Your task to perform on an android device: see tabs open on other devices in the chrome app Image 0: 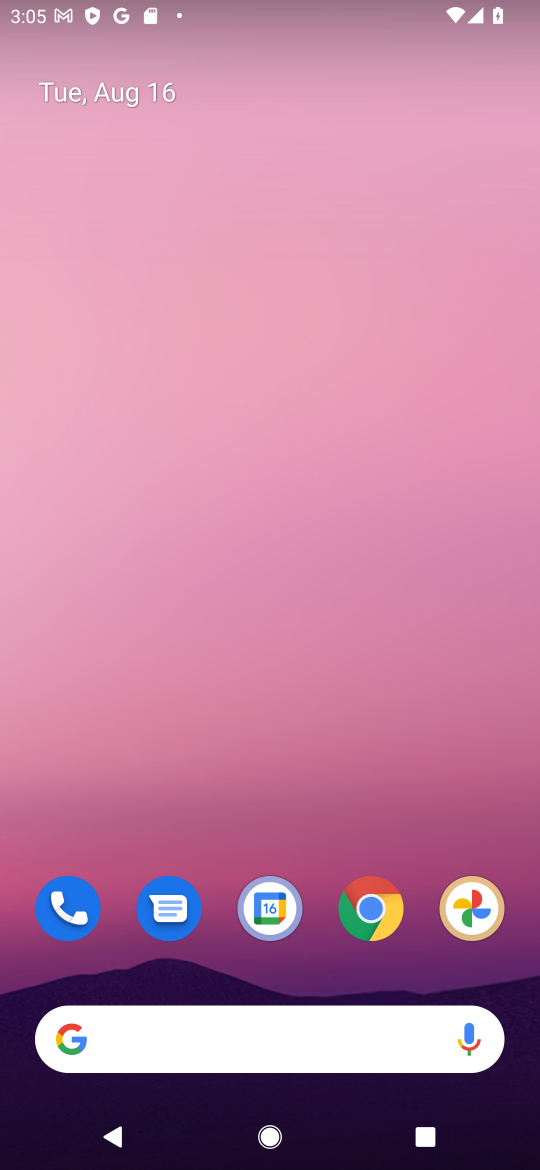
Step 0: click (382, 911)
Your task to perform on an android device: see tabs open on other devices in the chrome app Image 1: 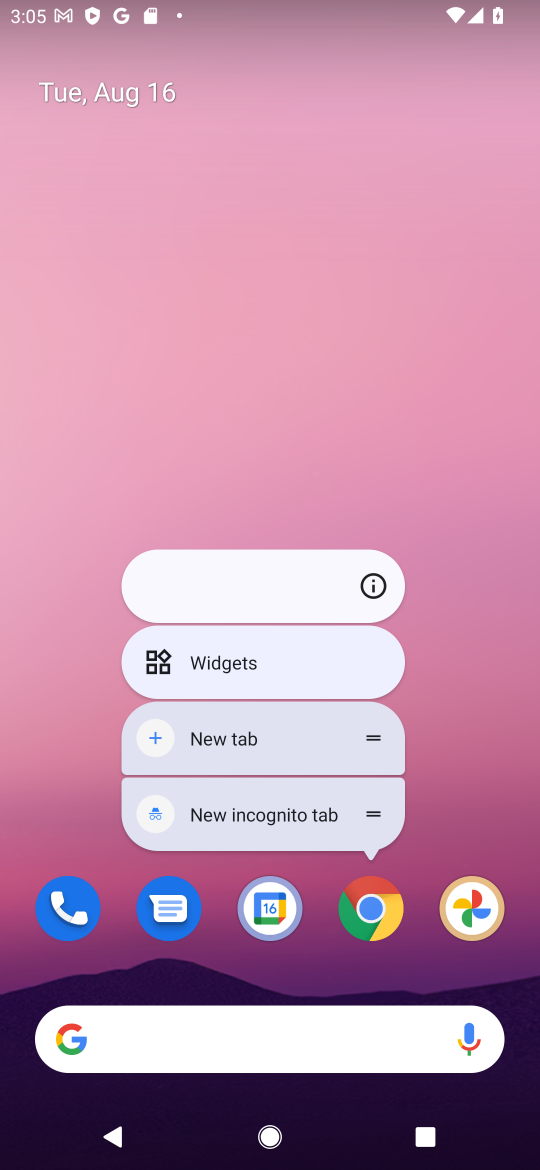
Step 1: click (376, 909)
Your task to perform on an android device: see tabs open on other devices in the chrome app Image 2: 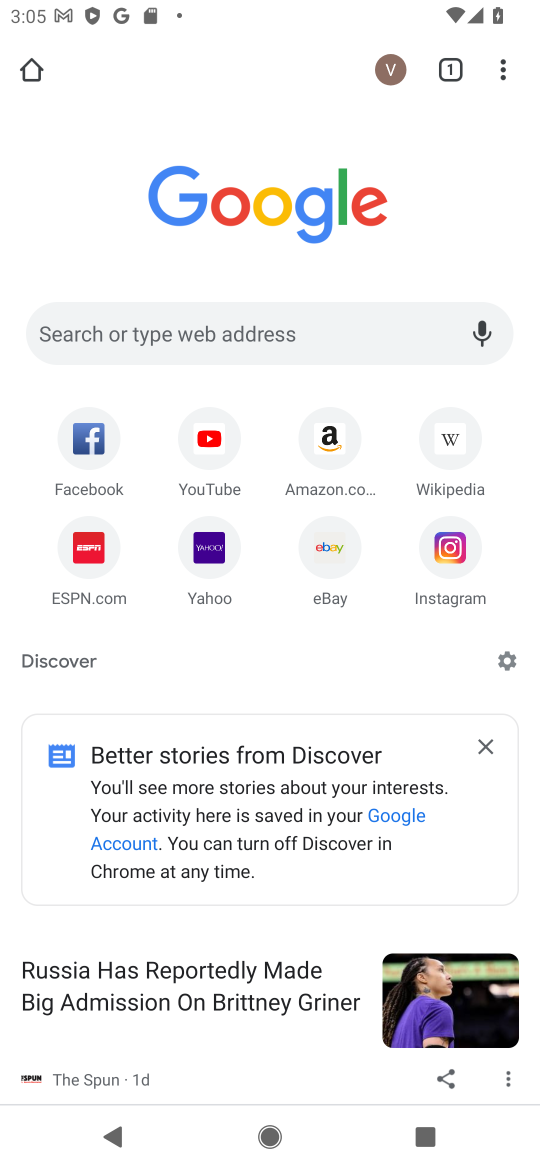
Step 2: task complete